Your task to perform on an android device: Open the Play Movies app and select the watchlist tab. Image 0: 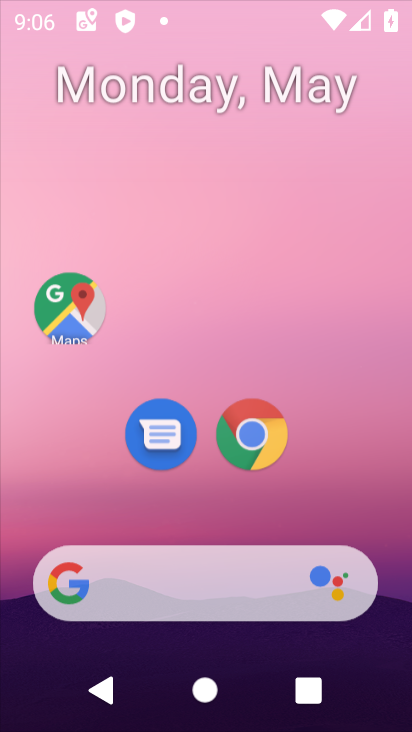
Step 0: press home button
Your task to perform on an android device: Open the Play Movies app and select the watchlist tab. Image 1: 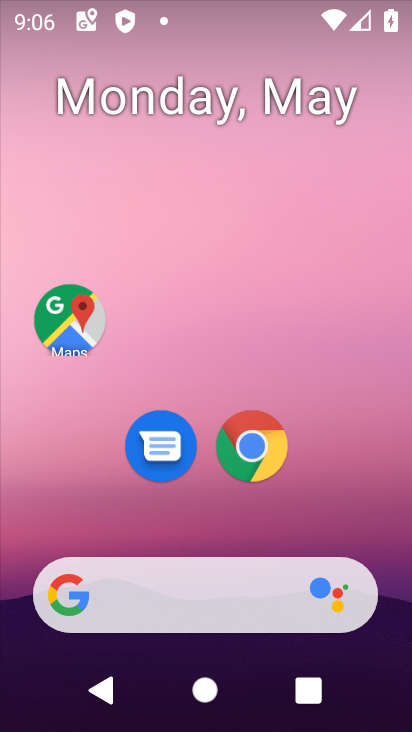
Step 1: press home button
Your task to perform on an android device: Open the Play Movies app and select the watchlist tab. Image 2: 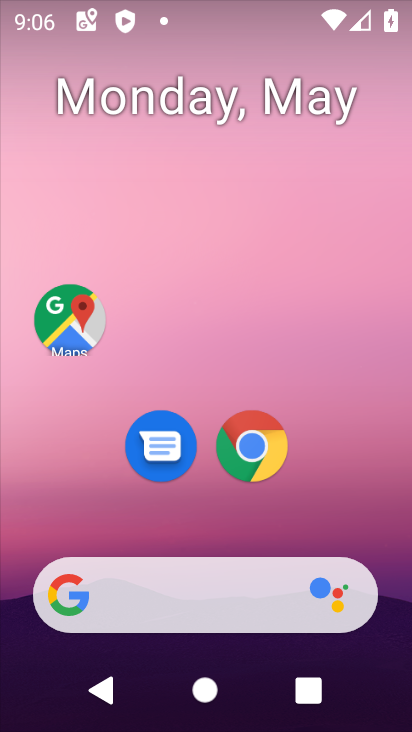
Step 2: drag from (207, 500) to (241, 0)
Your task to perform on an android device: Open the Play Movies app and select the watchlist tab. Image 3: 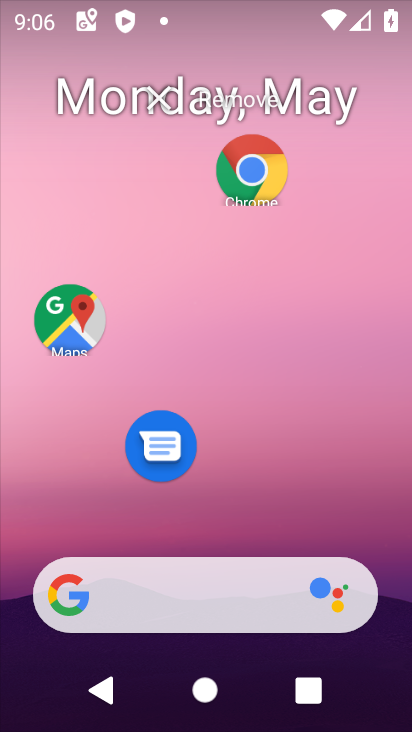
Step 3: click (205, 44)
Your task to perform on an android device: Open the Play Movies app and select the watchlist tab. Image 4: 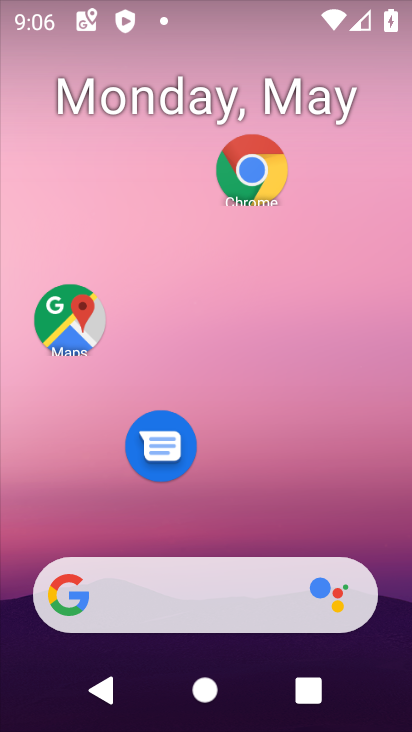
Step 4: drag from (291, 522) to (324, 10)
Your task to perform on an android device: Open the Play Movies app and select the watchlist tab. Image 5: 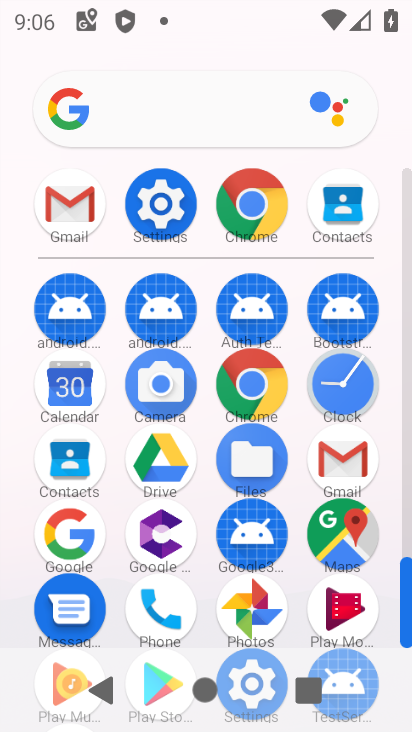
Step 5: click (341, 605)
Your task to perform on an android device: Open the Play Movies app and select the watchlist tab. Image 6: 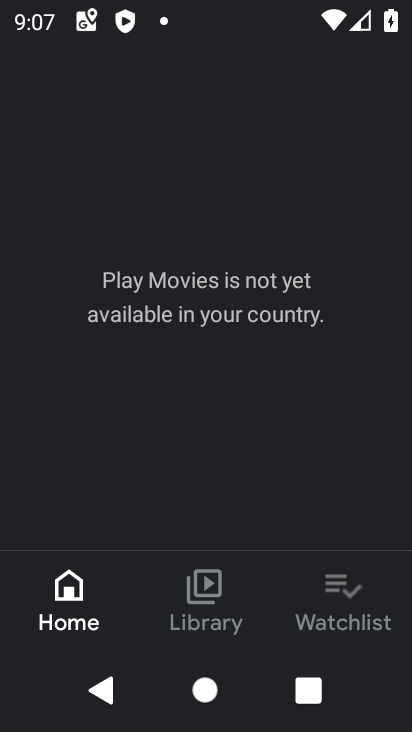
Step 6: click (336, 590)
Your task to perform on an android device: Open the Play Movies app and select the watchlist tab. Image 7: 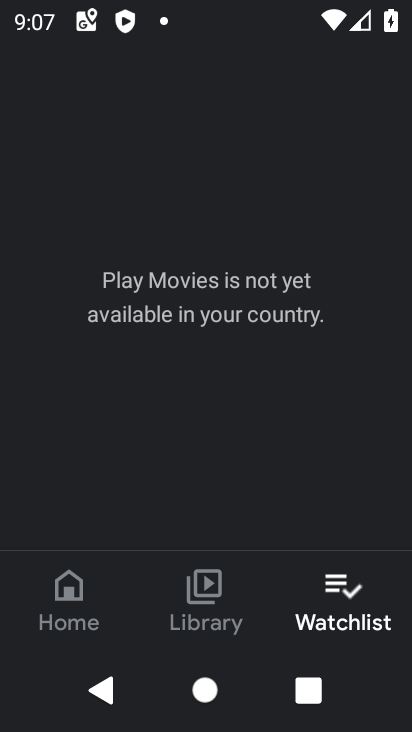
Step 7: task complete